Your task to perform on an android device: create a new album in the google photos Image 0: 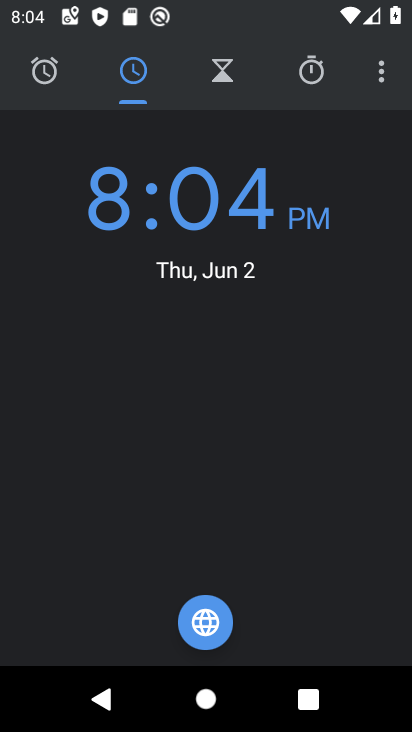
Step 0: press home button
Your task to perform on an android device: create a new album in the google photos Image 1: 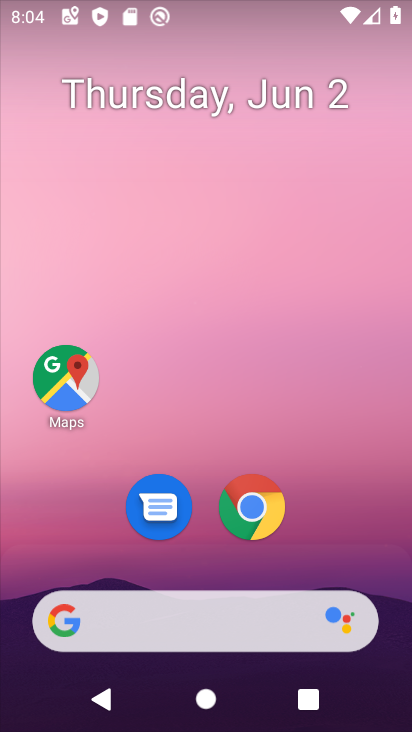
Step 1: drag from (123, 579) to (231, 163)
Your task to perform on an android device: create a new album in the google photos Image 2: 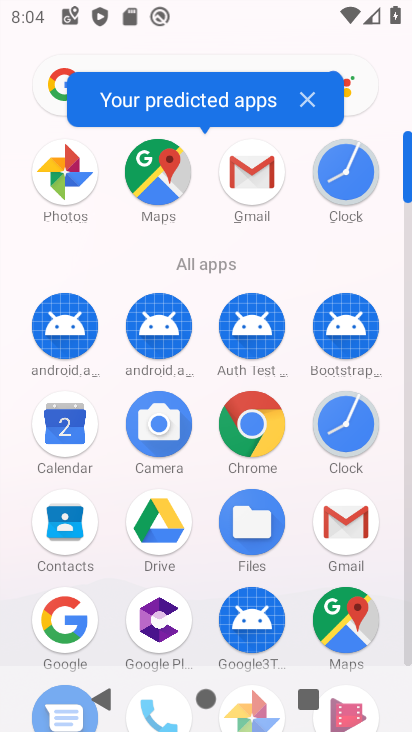
Step 2: drag from (232, 606) to (328, 213)
Your task to perform on an android device: create a new album in the google photos Image 3: 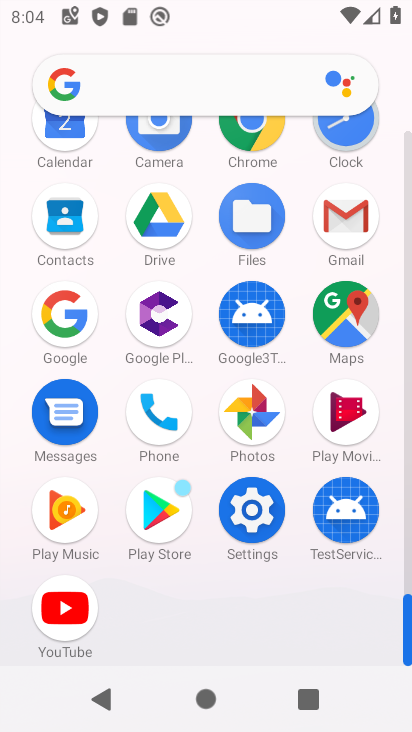
Step 3: click (254, 419)
Your task to perform on an android device: create a new album in the google photos Image 4: 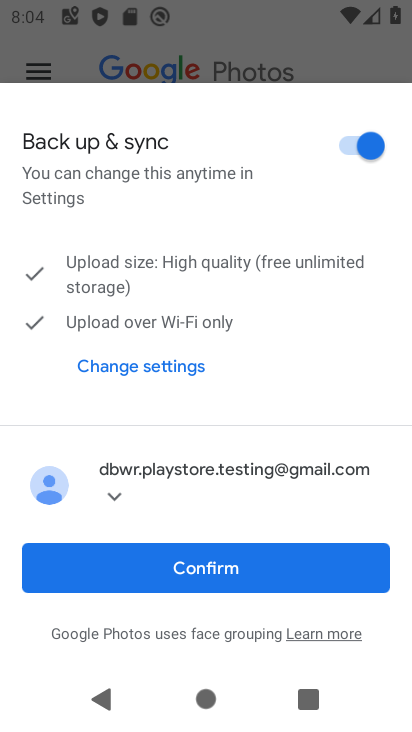
Step 4: click (200, 573)
Your task to perform on an android device: create a new album in the google photos Image 5: 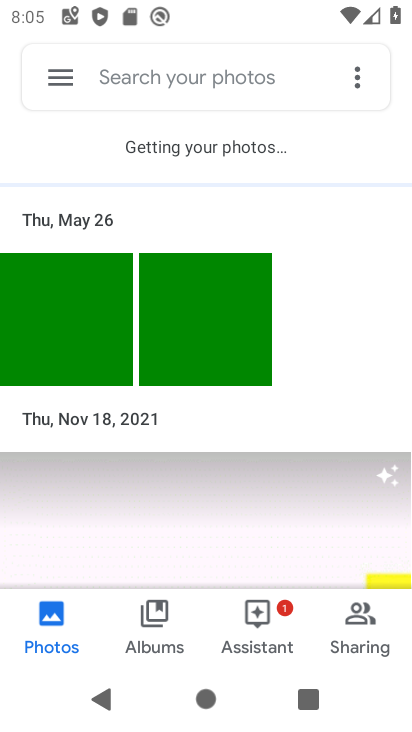
Step 5: click (60, 347)
Your task to perform on an android device: create a new album in the google photos Image 6: 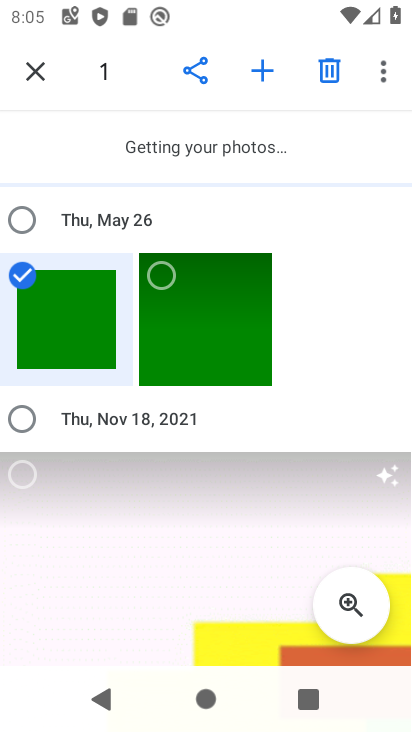
Step 6: click (162, 327)
Your task to perform on an android device: create a new album in the google photos Image 7: 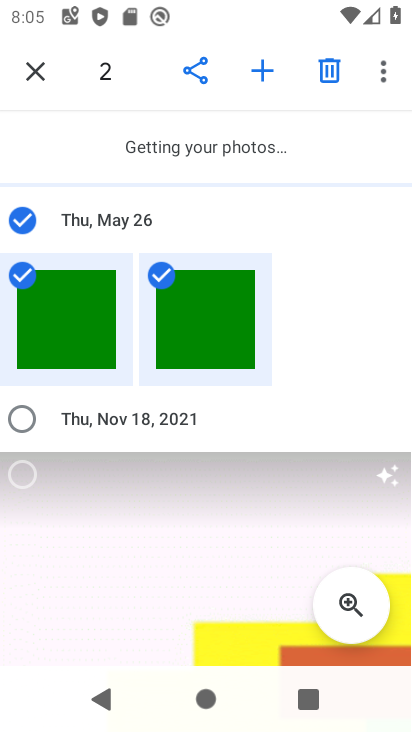
Step 7: click (14, 431)
Your task to perform on an android device: create a new album in the google photos Image 8: 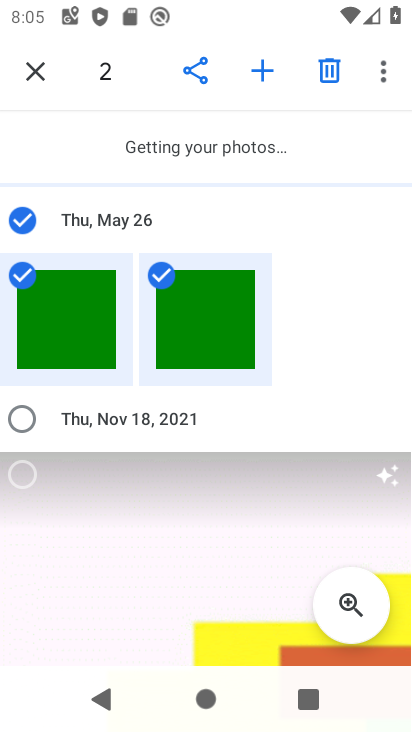
Step 8: click (33, 421)
Your task to perform on an android device: create a new album in the google photos Image 9: 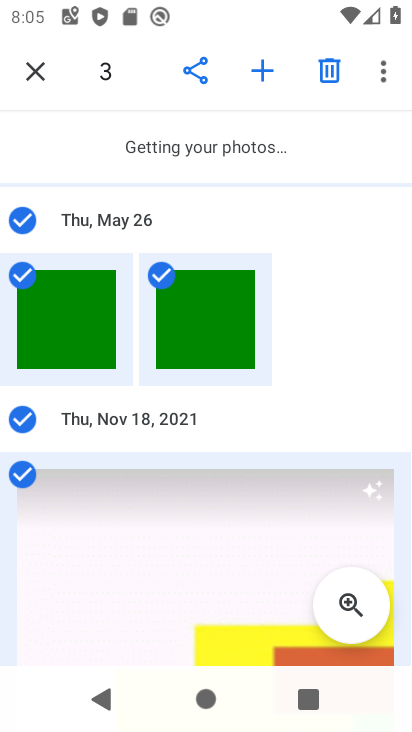
Step 9: click (273, 69)
Your task to perform on an android device: create a new album in the google photos Image 10: 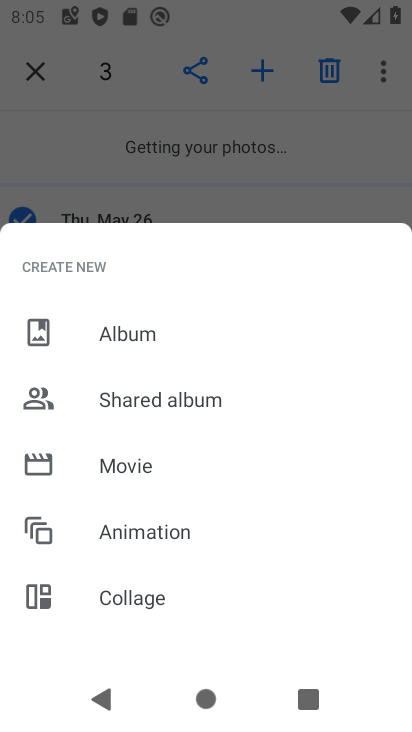
Step 10: click (217, 351)
Your task to perform on an android device: create a new album in the google photos Image 11: 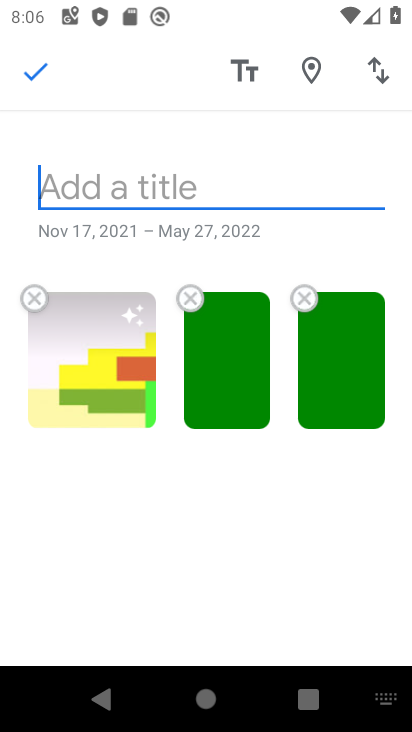
Step 11: type "llllllllllllllllllllllll"
Your task to perform on an android device: create a new album in the google photos Image 12: 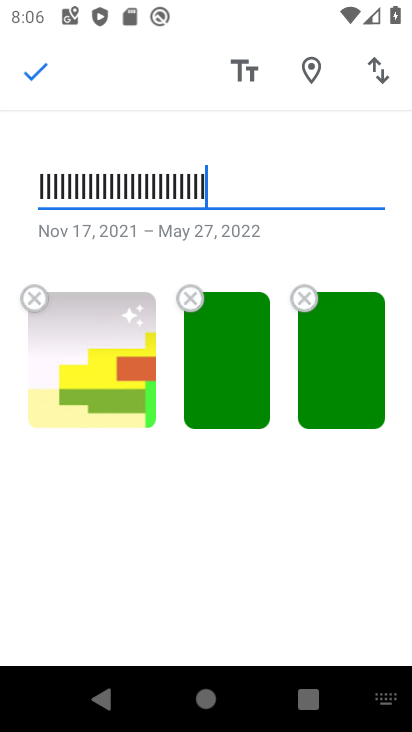
Step 12: click (37, 73)
Your task to perform on an android device: create a new album in the google photos Image 13: 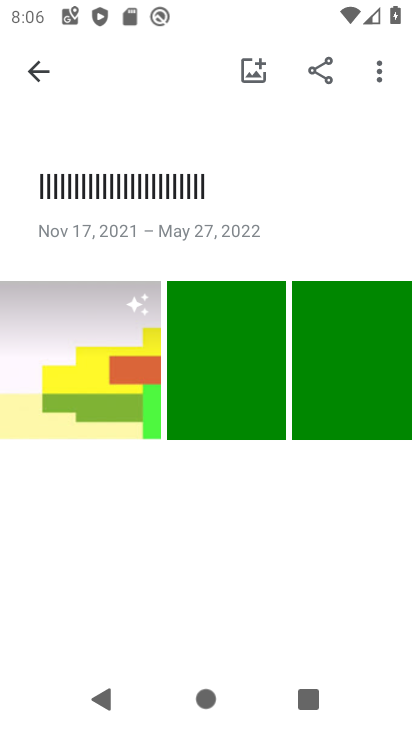
Step 13: task complete